Your task to perform on an android device: turn on the 12-hour format for clock Image 0: 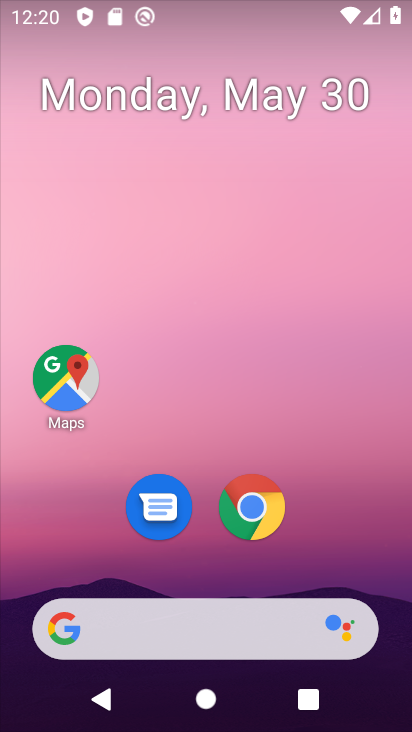
Step 0: drag from (344, 565) to (307, 274)
Your task to perform on an android device: turn on the 12-hour format for clock Image 1: 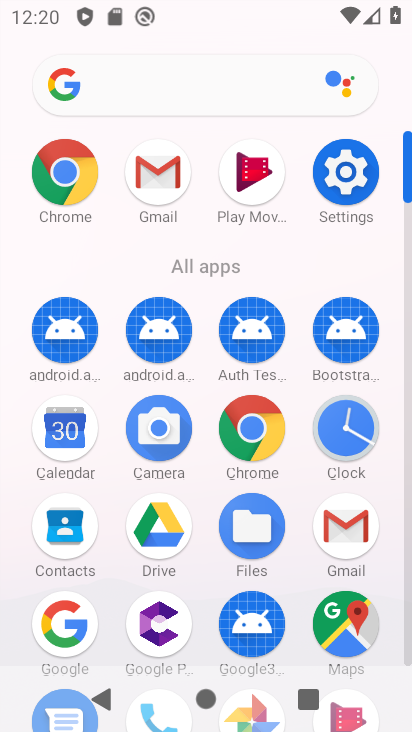
Step 1: click (354, 425)
Your task to perform on an android device: turn on the 12-hour format for clock Image 2: 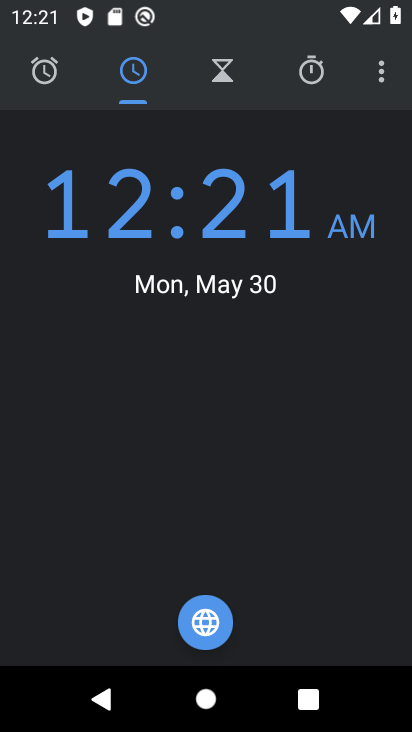
Step 2: click (377, 74)
Your task to perform on an android device: turn on the 12-hour format for clock Image 3: 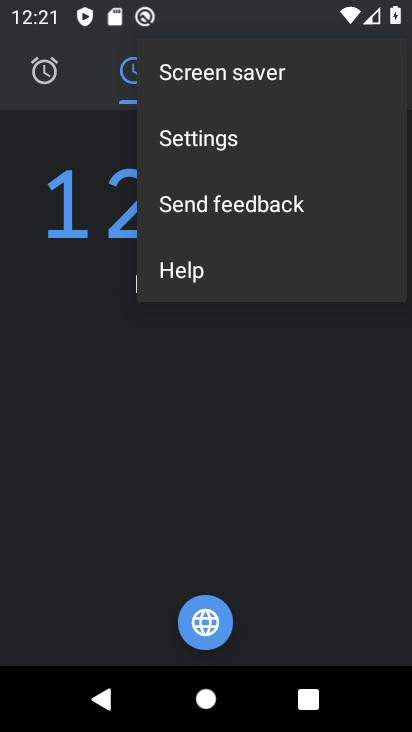
Step 3: click (201, 136)
Your task to perform on an android device: turn on the 12-hour format for clock Image 4: 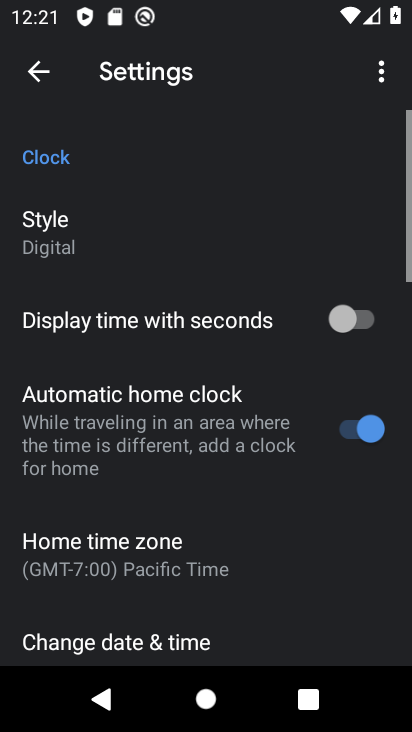
Step 4: drag from (240, 508) to (251, 171)
Your task to perform on an android device: turn on the 12-hour format for clock Image 5: 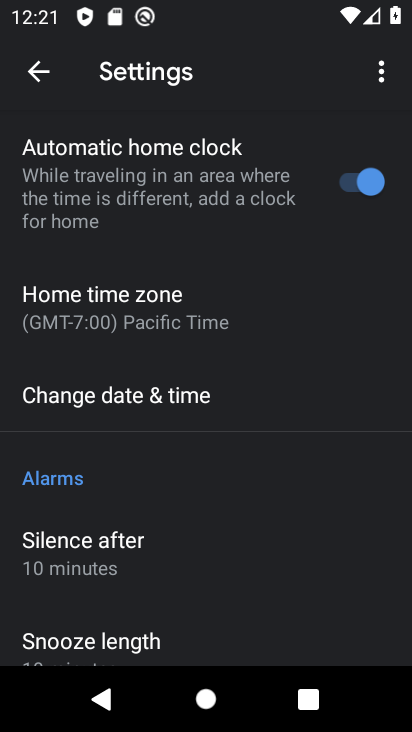
Step 5: click (182, 393)
Your task to perform on an android device: turn on the 12-hour format for clock Image 6: 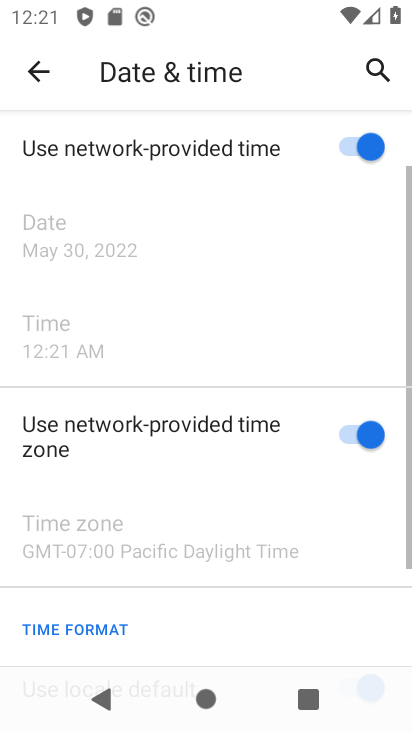
Step 6: drag from (257, 572) to (293, 295)
Your task to perform on an android device: turn on the 12-hour format for clock Image 7: 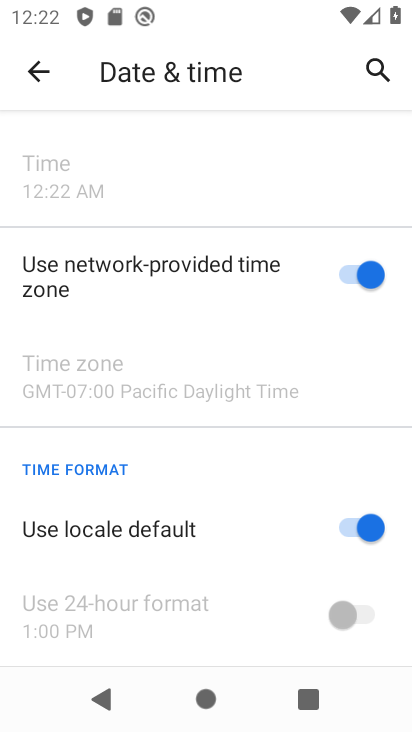
Step 7: click (347, 514)
Your task to perform on an android device: turn on the 12-hour format for clock Image 8: 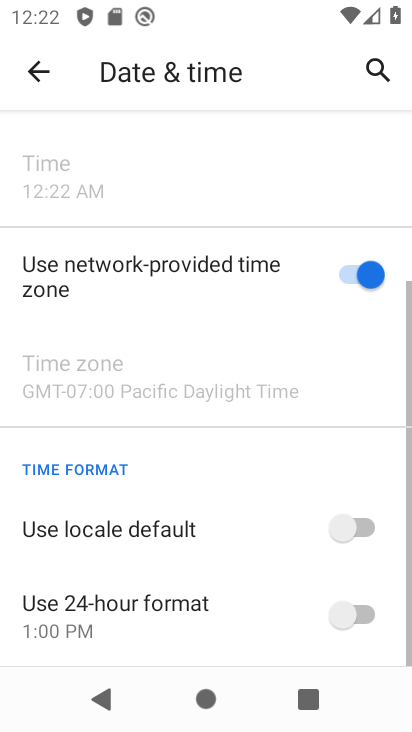
Step 8: click (359, 619)
Your task to perform on an android device: turn on the 12-hour format for clock Image 9: 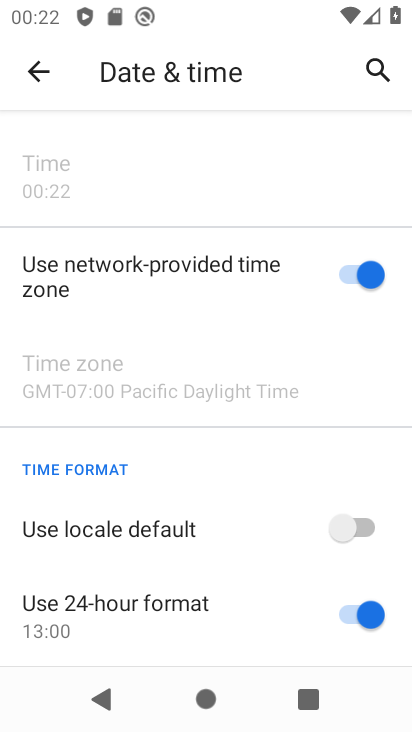
Step 9: task complete